Your task to perform on an android device: Open maps Image 0: 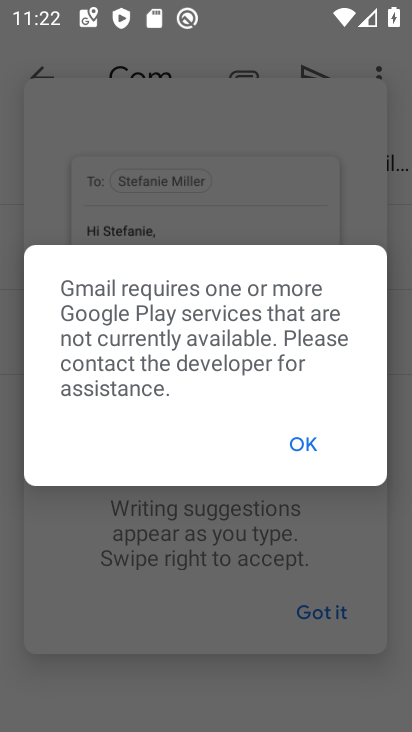
Step 0: press home button
Your task to perform on an android device: Open maps Image 1: 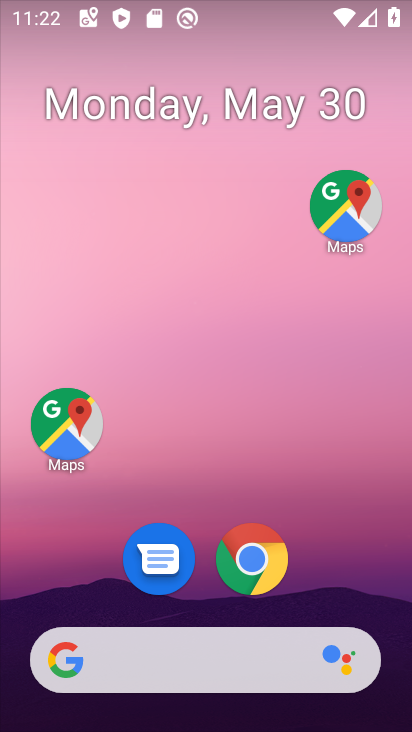
Step 1: click (59, 444)
Your task to perform on an android device: Open maps Image 2: 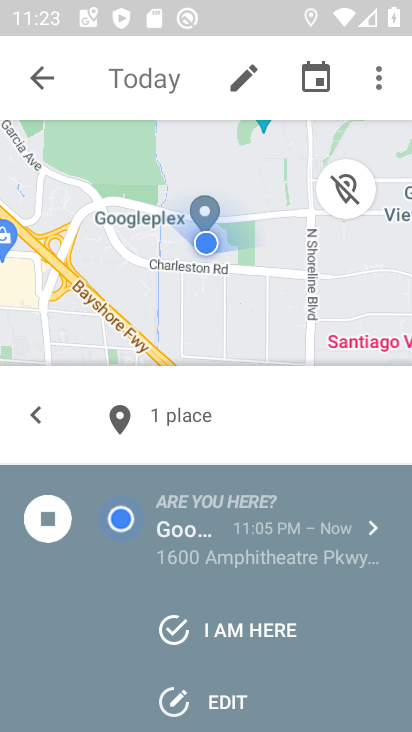
Step 2: task complete